Your task to perform on an android device: change keyboard looks Image 0: 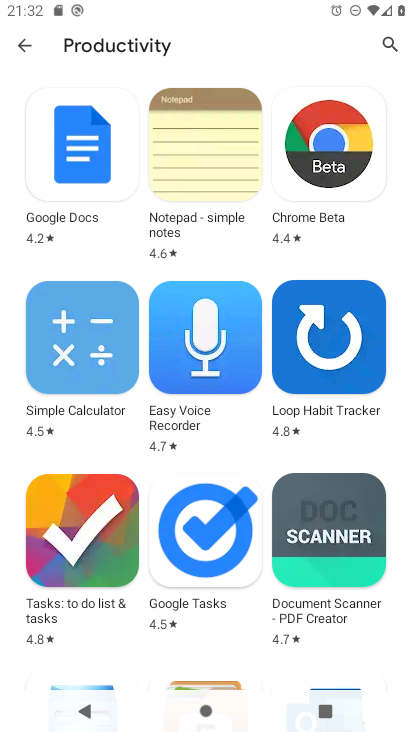
Step 0: press home button
Your task to perform on an android device: change keyboard looks Image 1: 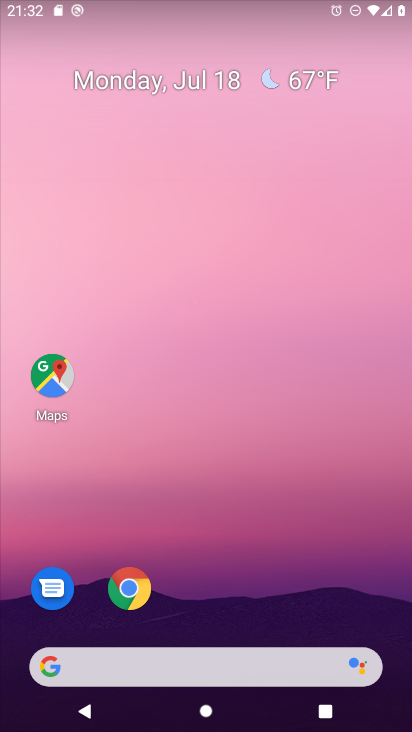
Step 1: drag from (371, 607) to (330, 220)
Your task to perform on an android device: change keyboard looks Image 2: 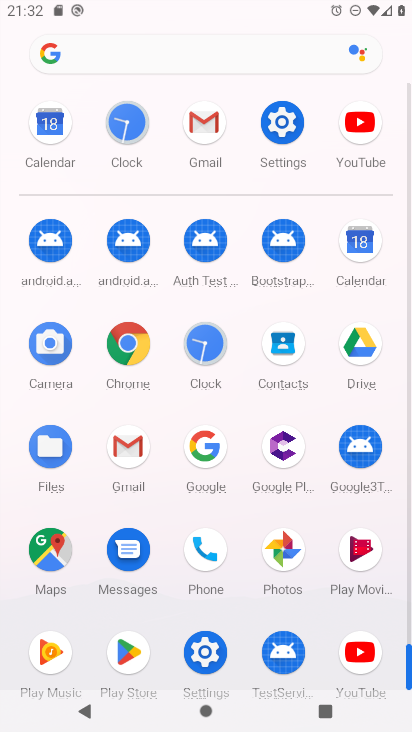
Step 2: click (206, 659)
Your task to perform on an android device: change keyboard looks Image 3: 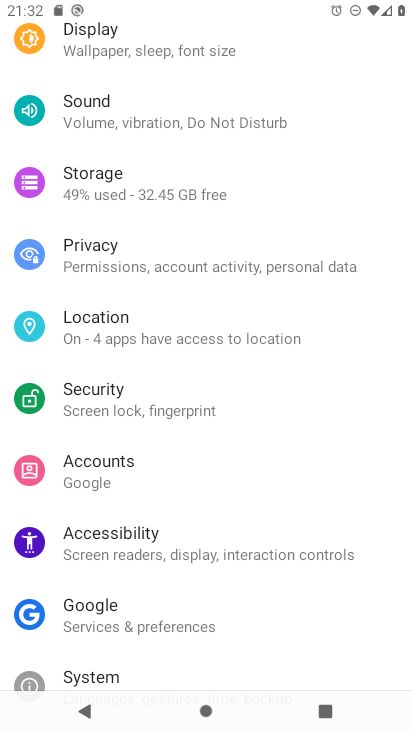
Step 3: drag from (291, 634) to (267, 244)
Your task to perform on an android device: change keyboard looks Image 4: 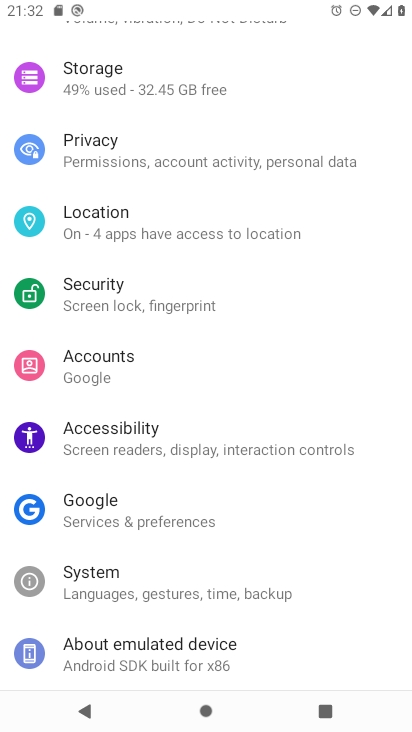
Step 4: click (75, 571)
Your task to perform on an android device: change keyboard looks Image 5: 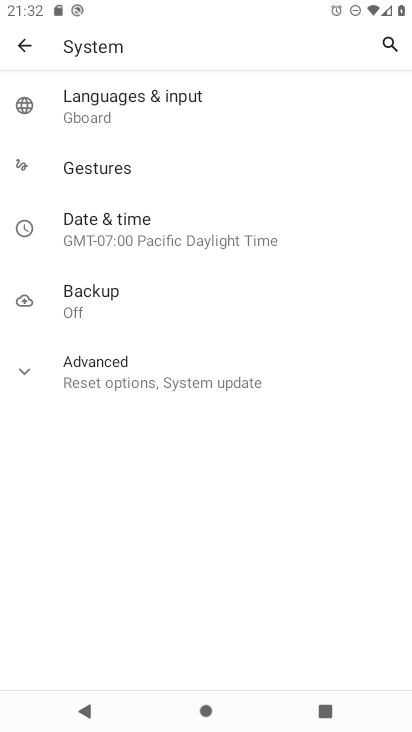
Step 5: click (101, 101)
Your task to perform on an android device: change keyboard looks Image 6: 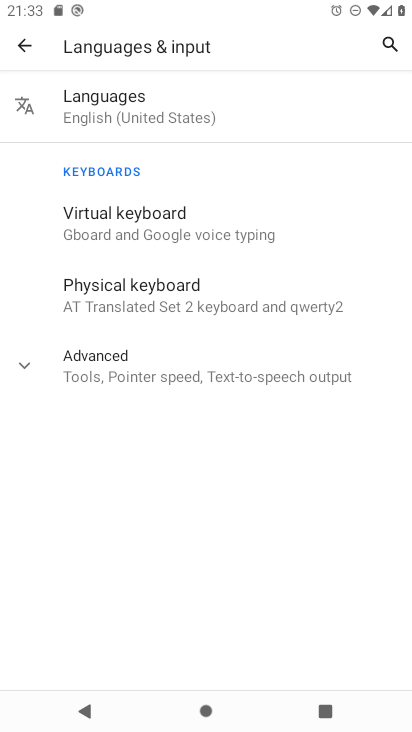
Step 6: click (98, 291)
Your task to perform on an android device: change keyboard looks Image 7: 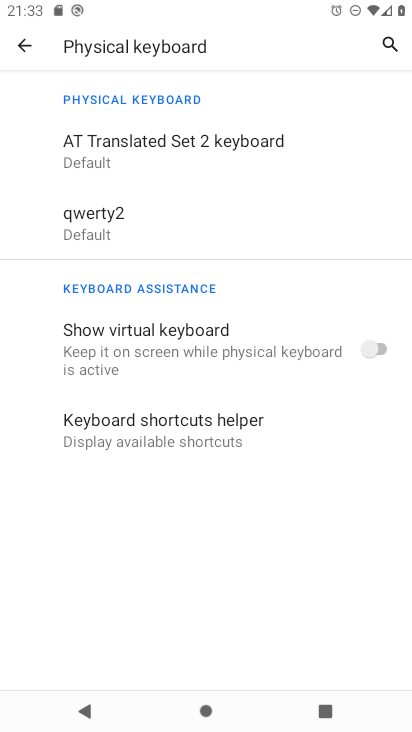
Step 7: click (109, 219)
Your task to perform on an android device: change keyboard looks Image 8: 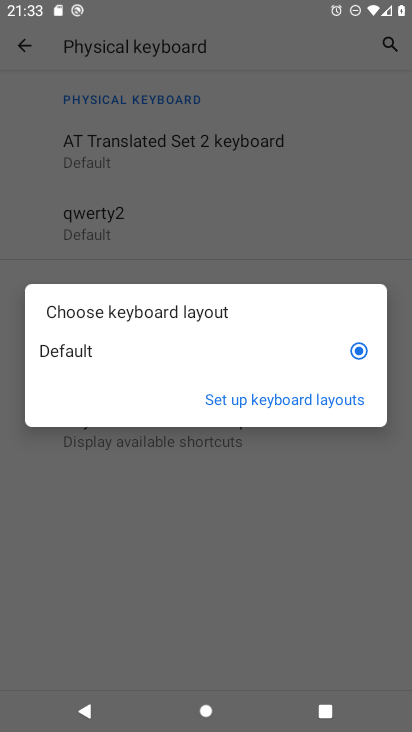
Step 8: click (297, 398)
Your task to perform on an android device: change keyboard looks Image 9: 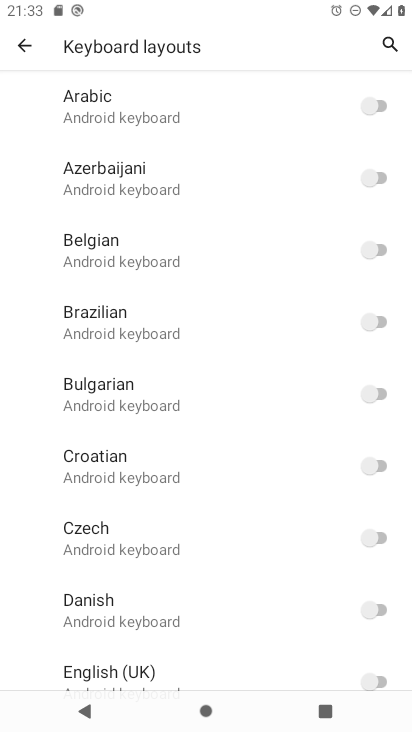
Step 9: drag from (246, 607) to (252, 355)
Your task to perform on an android device: change keyboard looks Image 10: 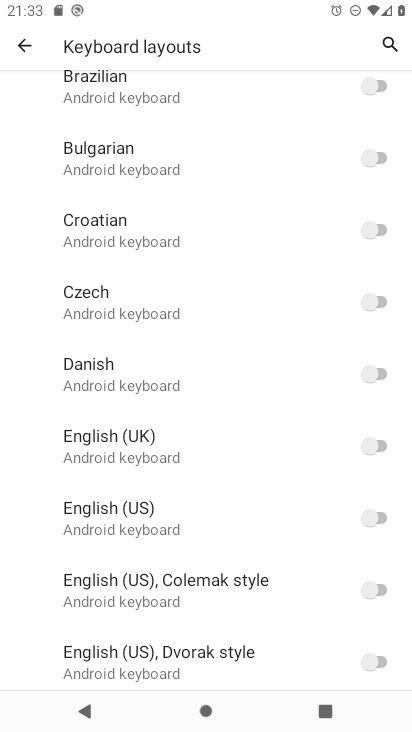
Step 10: click (380, 438)
Your task to perform on an android device: change keyboard looks Image 11: 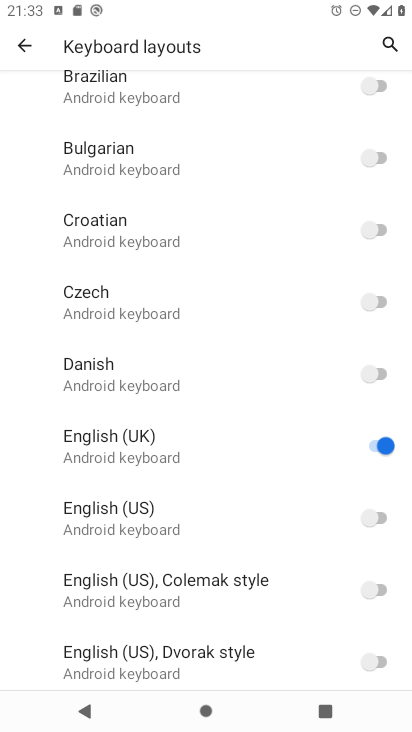
Step 11: task complete